Your task to perform on an android device: Do I have any events tomorrow? Image 0: 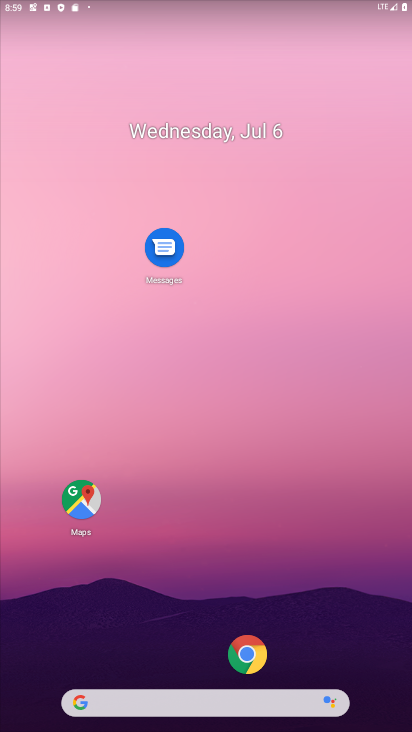
Step 0: click (185, 130)
Your task to perform on an android device: Do I have any events tomorrow? Image 1: 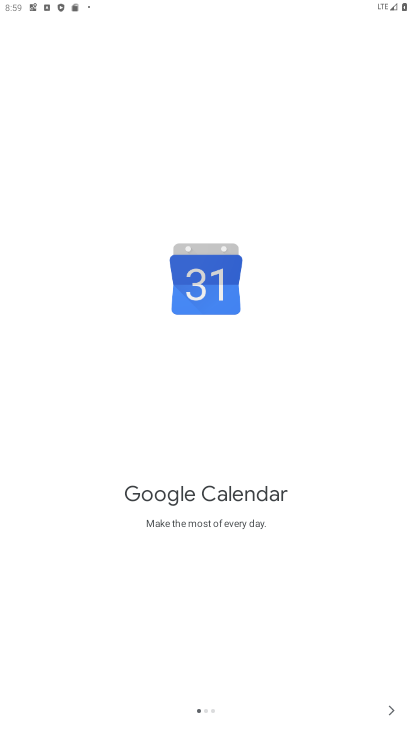
Step 1: click (393, 705)
Your task to perform on an android device: Do I have any events tomorrow? Image 2: 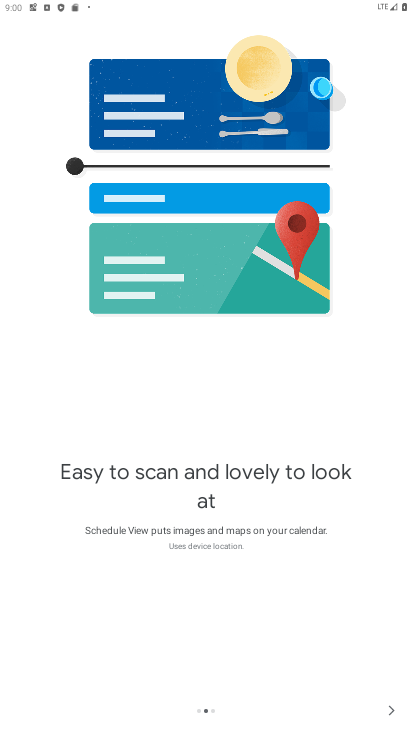
Step 2: click (393, 705)
Your task to perform on an android device: Do I have any events tomorrow? Image 3: 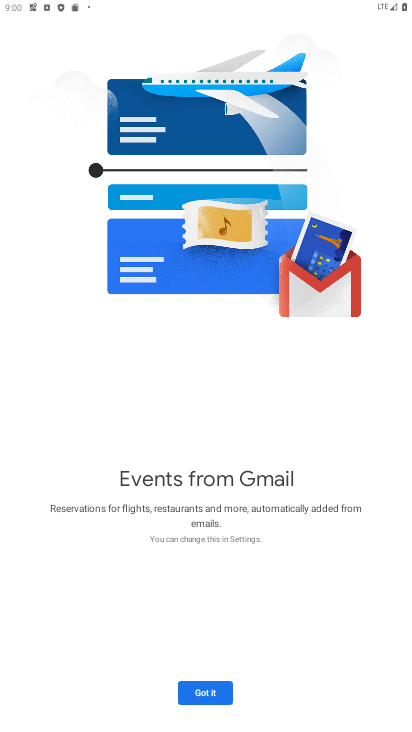
Step 3: click (178, 691)
Your task to perform on an android device: Do I have any events tomorrow? Image 4: 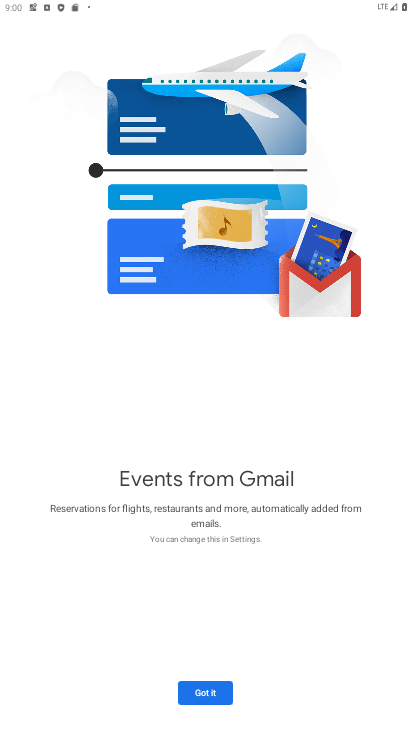
Step 4: click (213, 690)
Your task to perform on an android device: Do I have any events tomorrow? Image 5: 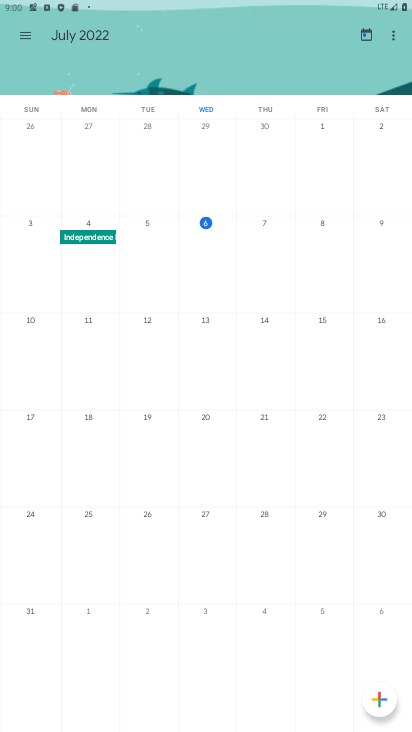
Step 5: click (270, 264)
Your task to perform on an android device: Do I have any events tomorrow? Image 6: 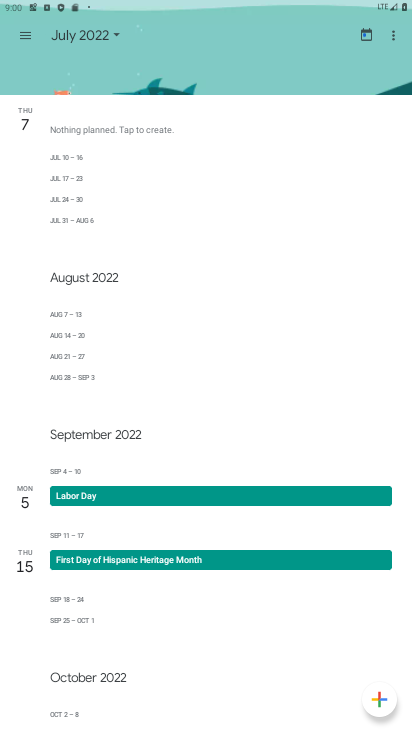
Step 6: click (25, 38)
Your task to perform on an android device: Do I have any events tomorrow? Image 7: 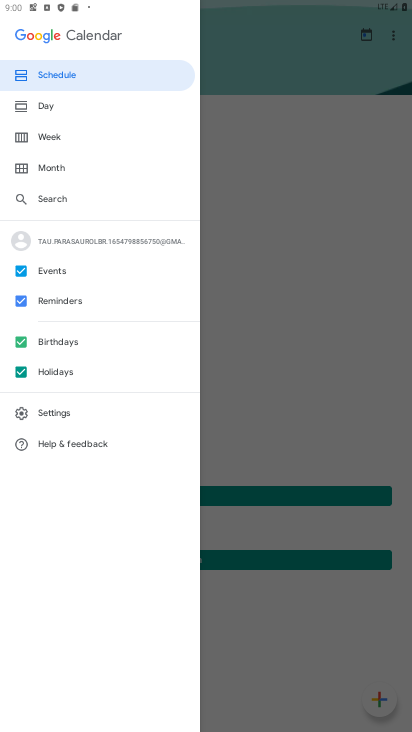
Step 7: click (17, 296)
Your task to perform on an android device: Do I have any events tomorrow? Image 8: 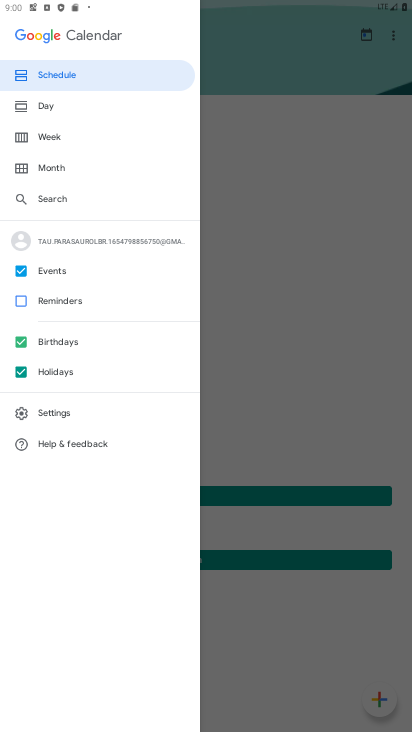
Step 8: click (18, 349)
Your task to perform on an android device: Do I have any events tomorrow? Image 9: 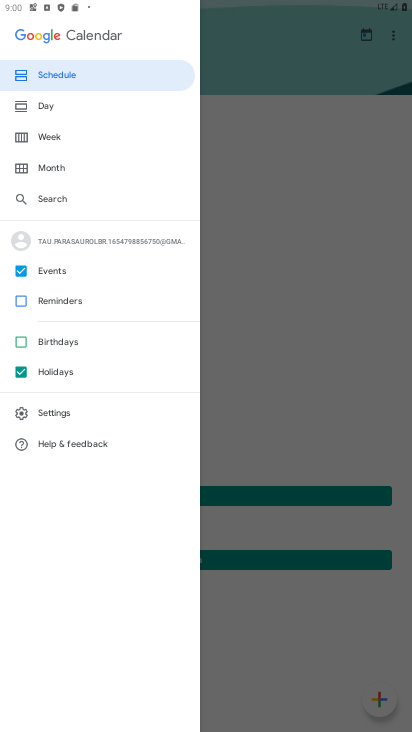
Step 9: click (19, 375)
Your task to perform on an android device: Do I have any events tomorrow? Image 10: 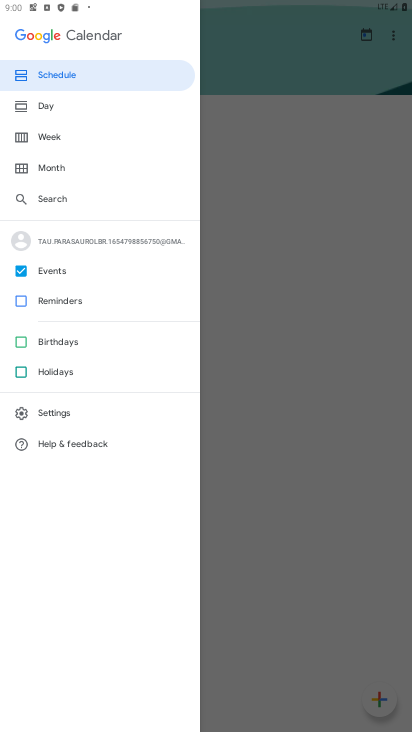
Step 10: click (69, 107)
Your task to perform on an android device: Do I have any events tomorrow? Image 11: 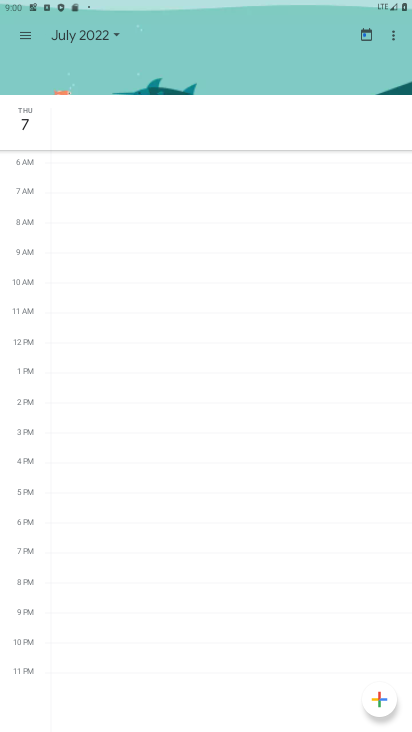
Step 11: task complete